Your task to perform on an android device: turn pop-ups on in chrome Image 0: 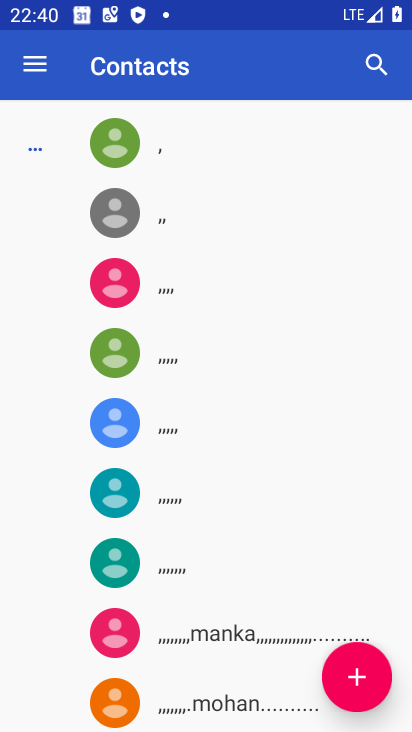
Step 0: press home button
Your task to perform on an android device: turn pop-ups on in chrome Image 1: 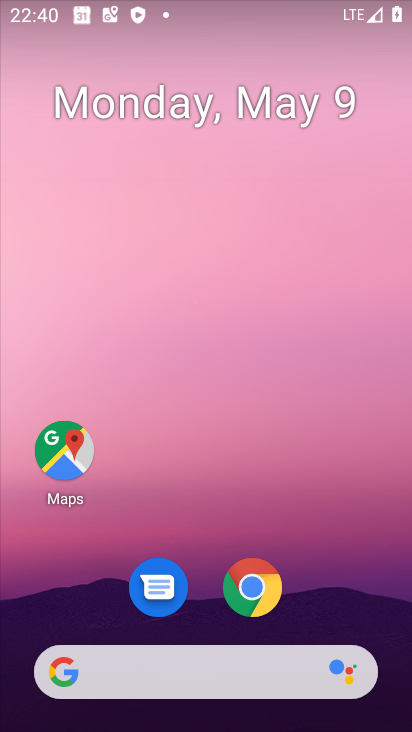
Step 1: click (261, 589)
Your task to perform on an android device: turn pop-ups on in chrome Image 2: 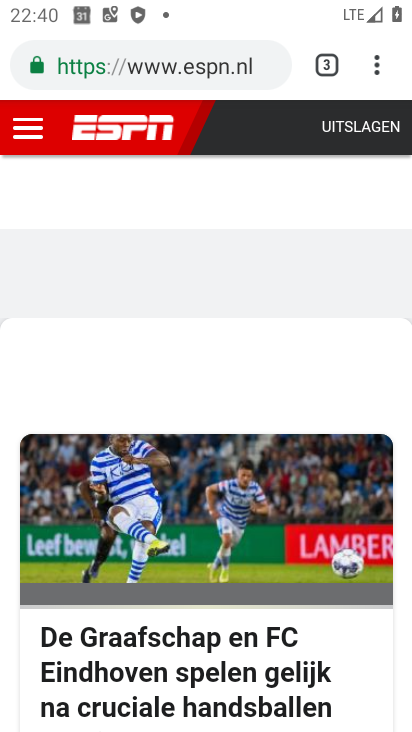
Step 2: click (363, 62)
Your task to perform on an android device: turn pop-ups on in chrome Image 3: 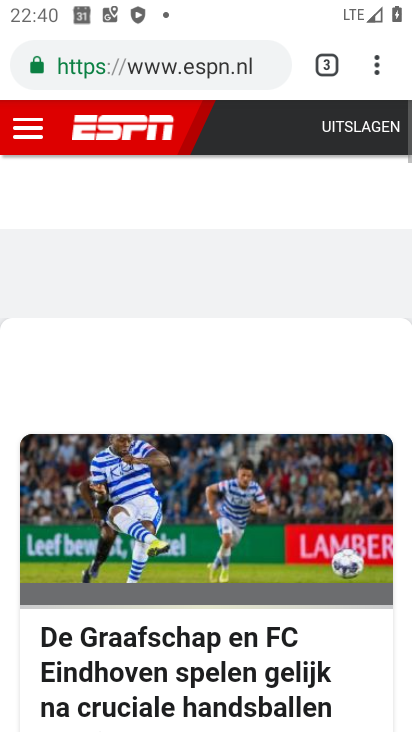
Step 3: click (363, 62)
Your task to perform on an android device: turn pop-ups on in chrome Image 4: 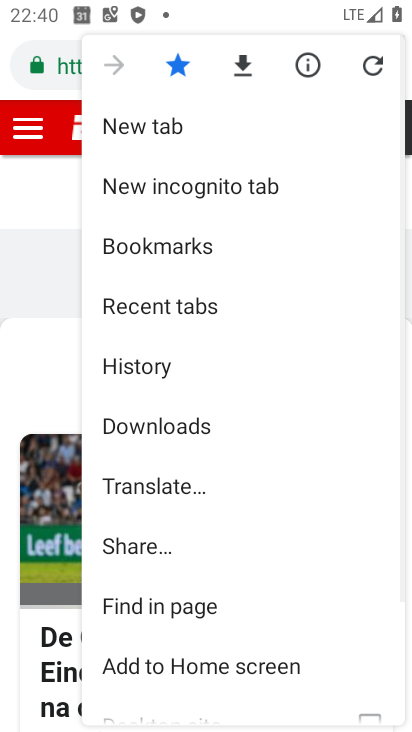
Step 4: drag from (164, 628) to (265, 136)
Your task to perform on an android device: turn pop-ups on in chrome Image 5: 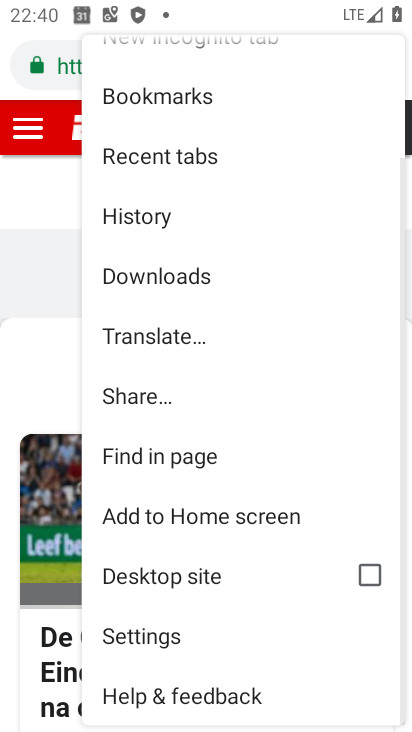
Step 5: click (177, 637)
Your task to perform on an android device: turn pop-ups on in chrome Image 6: 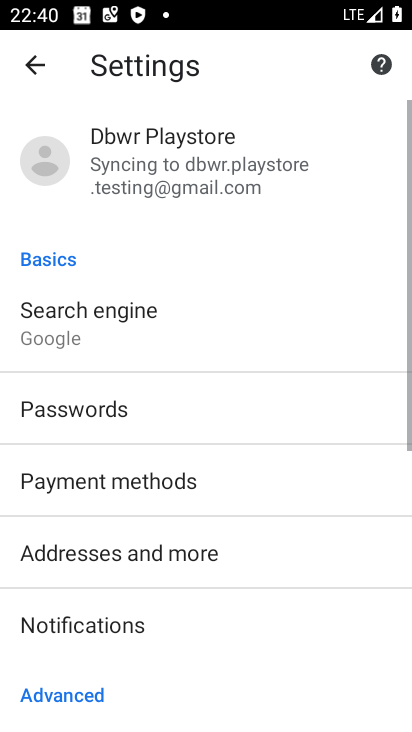
Step 6: drag from (177, 637) to (209, 284)
Your task to perform on an android device: turn pop-ups on in chrome Image 7: 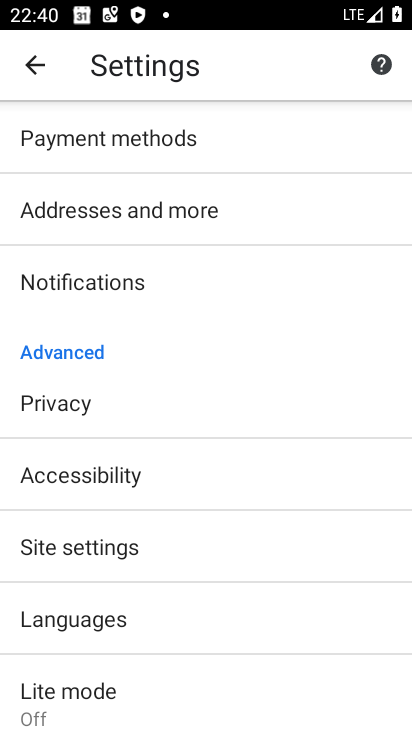
Step 7: drag from (176, 558) to (237, 184)
Your task to perform on an android device: turn pop-ups on in chrome Image 8: 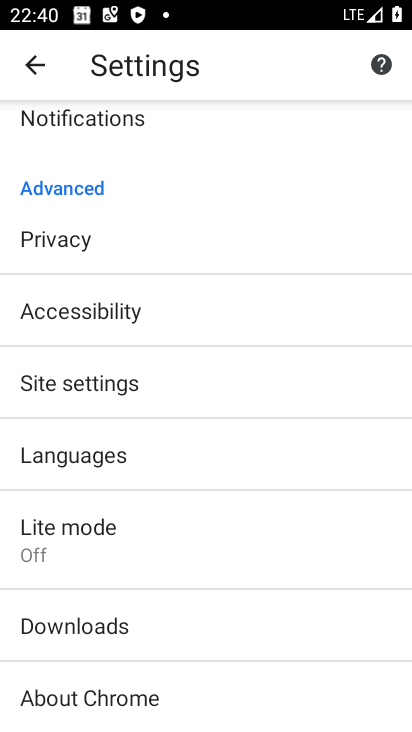
Step 8: drag from (147, 625) to (200, 246)
Your task to perform on an android device: turn pop-ups on in chrome Image 9: 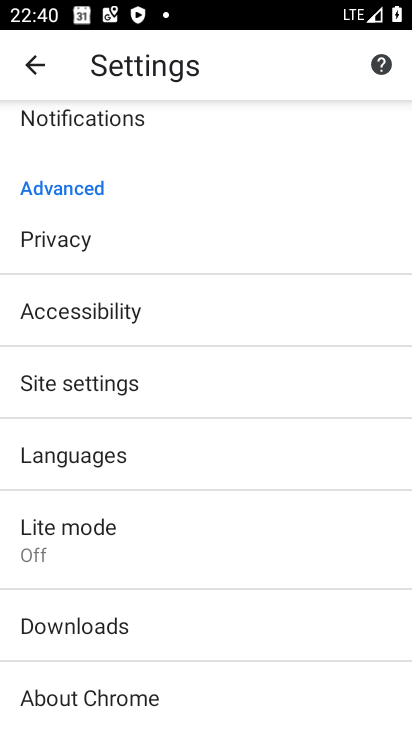
Step 9: click (167, 392)
Your task to perform on an android device: turn pop-ups on in chrome Image 10: 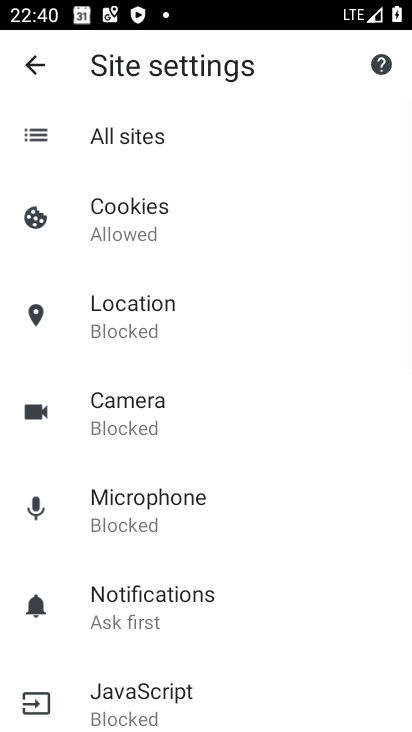
Step 10: drag from (186, 608) to (208, 97)
Your task to perform on an android device: turn pop-ups on in chrome Image 11: 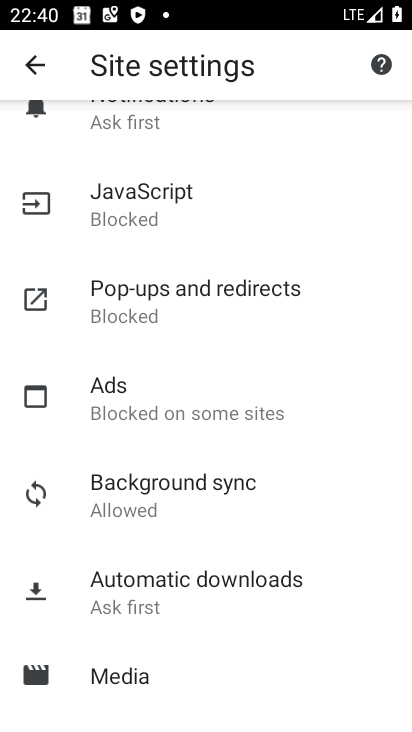
Step 11: drag from (178, 592) to (253, 103)
Your task to perform on an android device: turn pop-ups on in chrome Image 12: 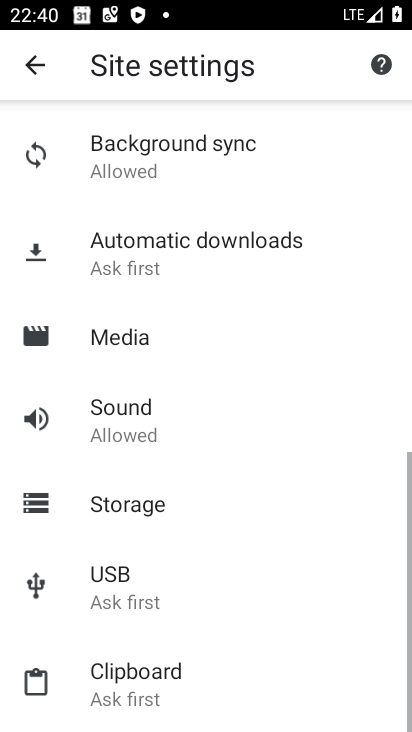
Step 12: drag from (190, 179) to (171, 637)
Your task to perform on an android device: turn pop-ups on in chrome Image 13: 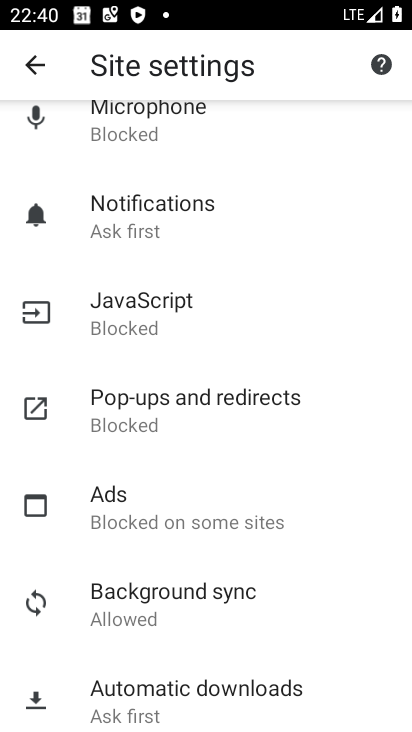
Step 13: click (196, 409)
Your task to perform on an android device: turn pop-ups on in chrome Image 14: 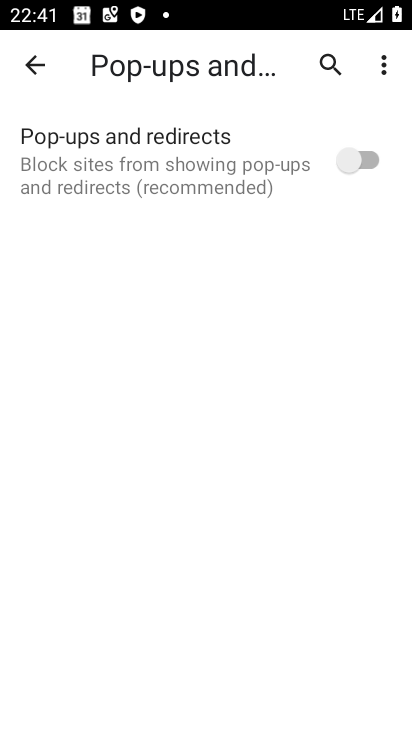
Step 14: click (370, 157)
Your task to perform on an android device: turn pop-ups on in chrome Image 15: 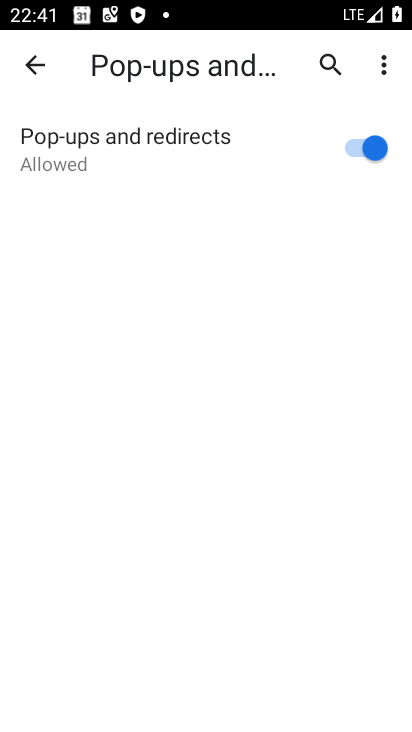
Step 15: task complete